Your task to perform on an android device: open app "Google Drive" (install if not already installed) Image 0: 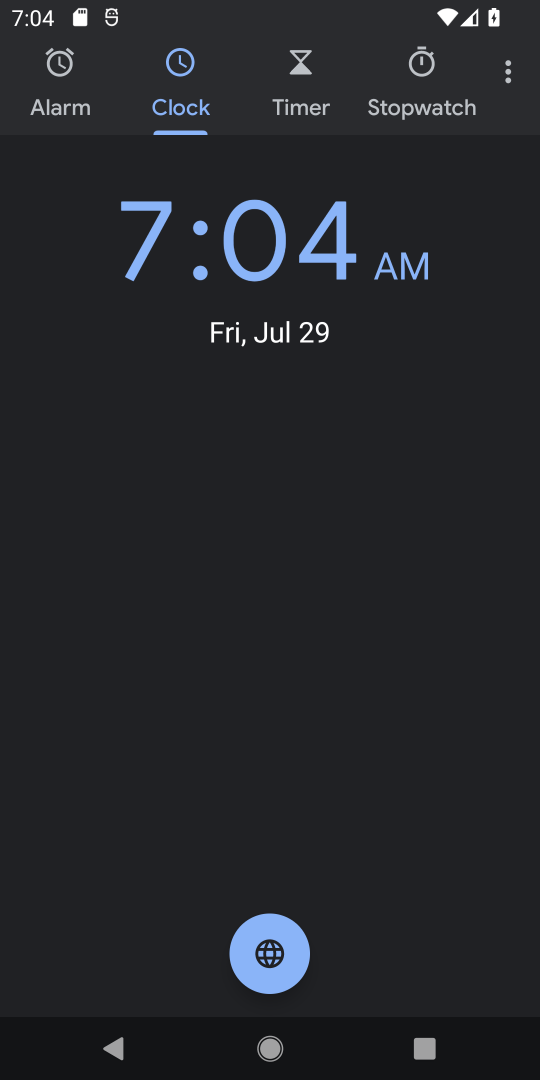
Step 0: press back button
Your task to perform on an android device: open app "Google Drive" (install if not already installed) Image 1: 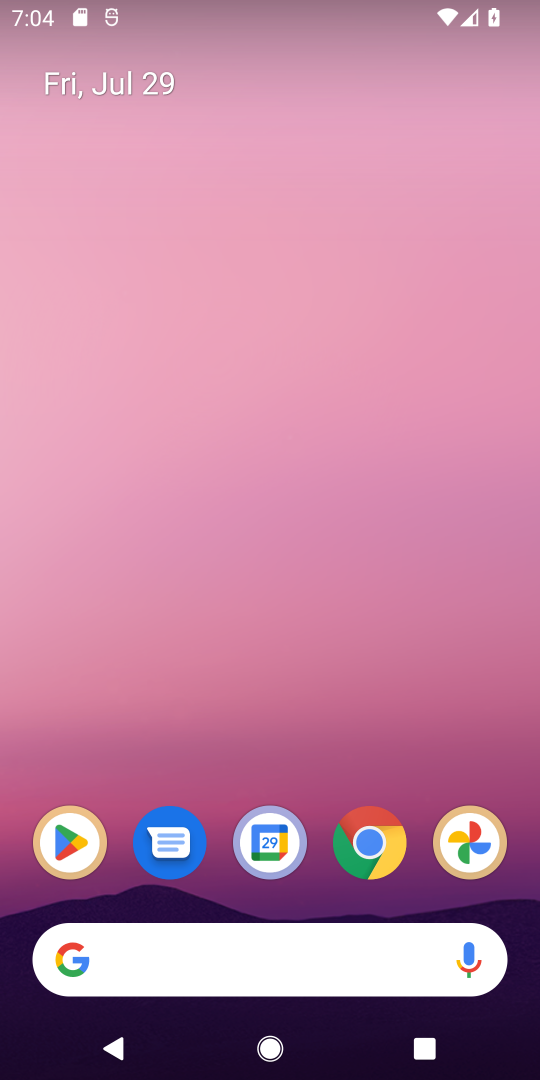
Step 1: drag from (304, 959) to (189, 155)
Your task to perform on an android device: open app "Google Drive" (install if not already installed) Image 2: 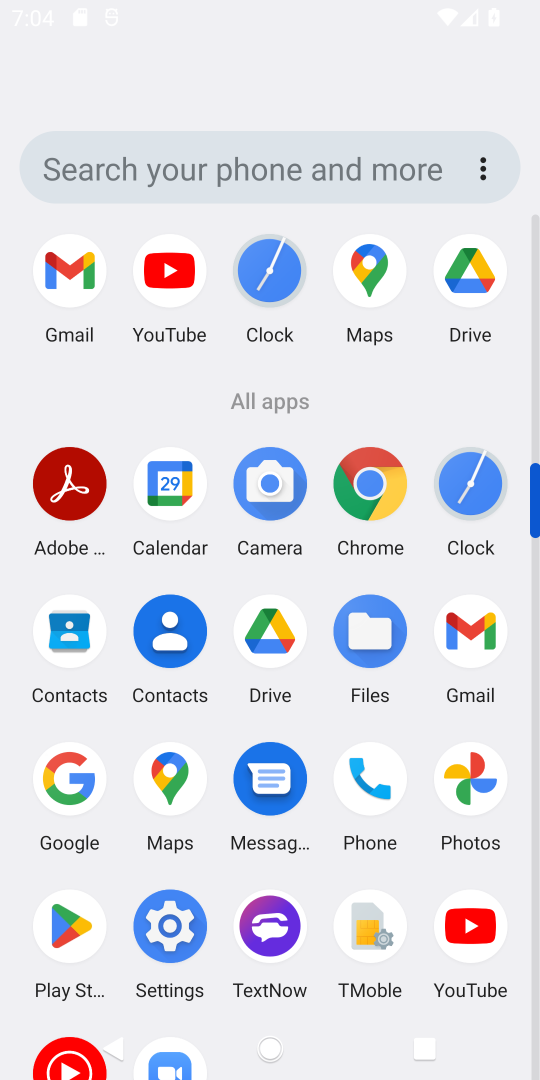
Step 2: drag from (312, 714) to (275, 192)
Your task to perform on an android device: open app "Google Drive" (install if not already installed) Image 3: 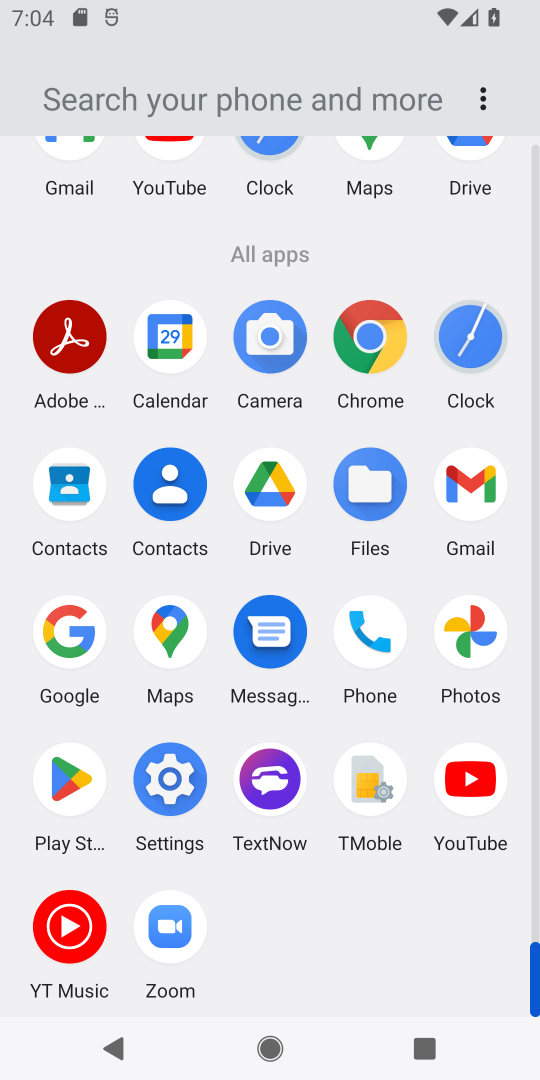
Step 3: click (56, 780)
Your task to perform on an android device: open app "Google Drive" (install if not already installed) Image 4: 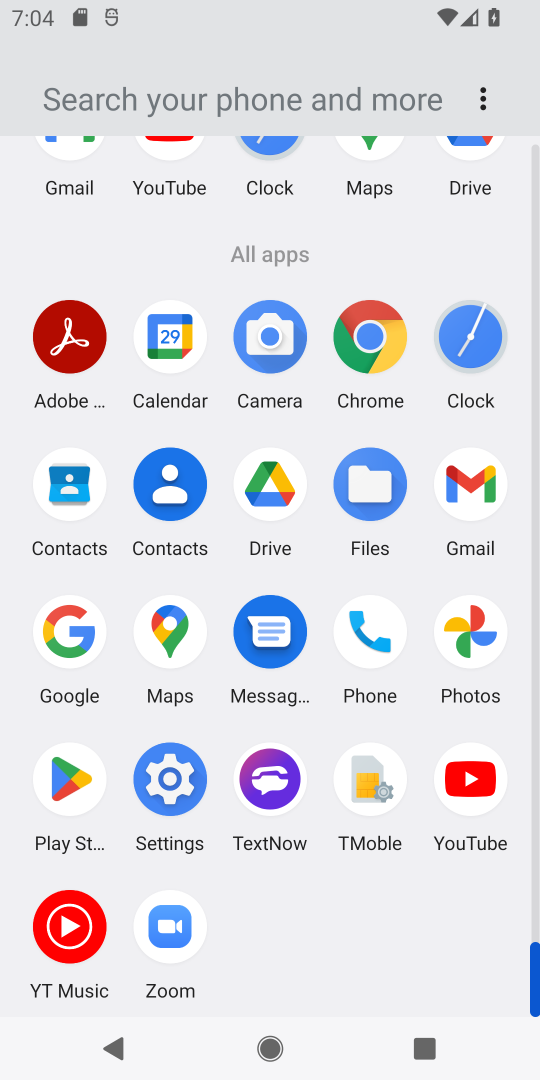
Step 4: click (57, 781)
Your task to perform on an android device: open app "Google Drive" (install if not already installed) Image 5: 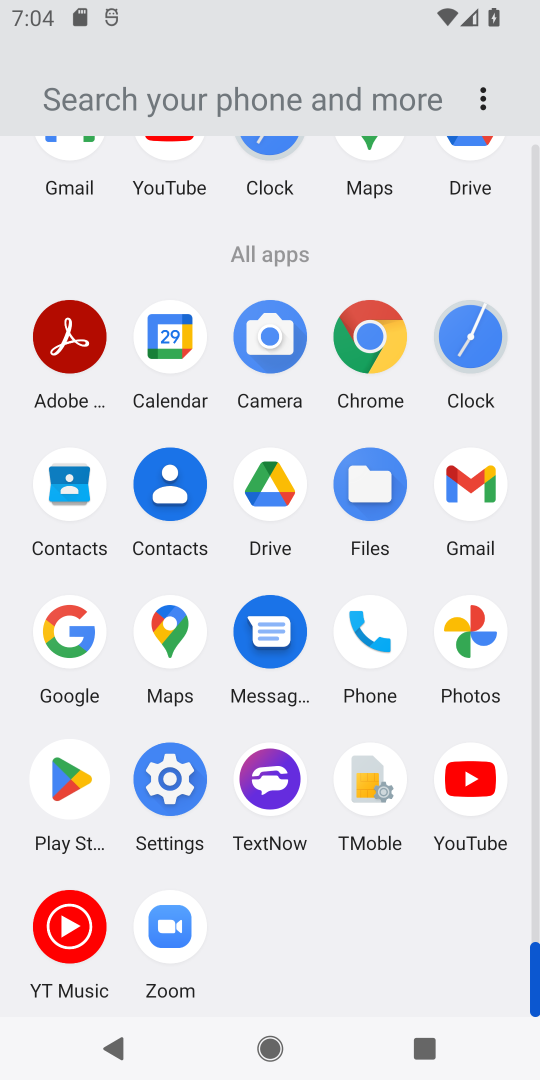
Step 5: click (72, 796)
Your task to perform on an android device: open app "Google Drive" (install if not already installed) Image 6: 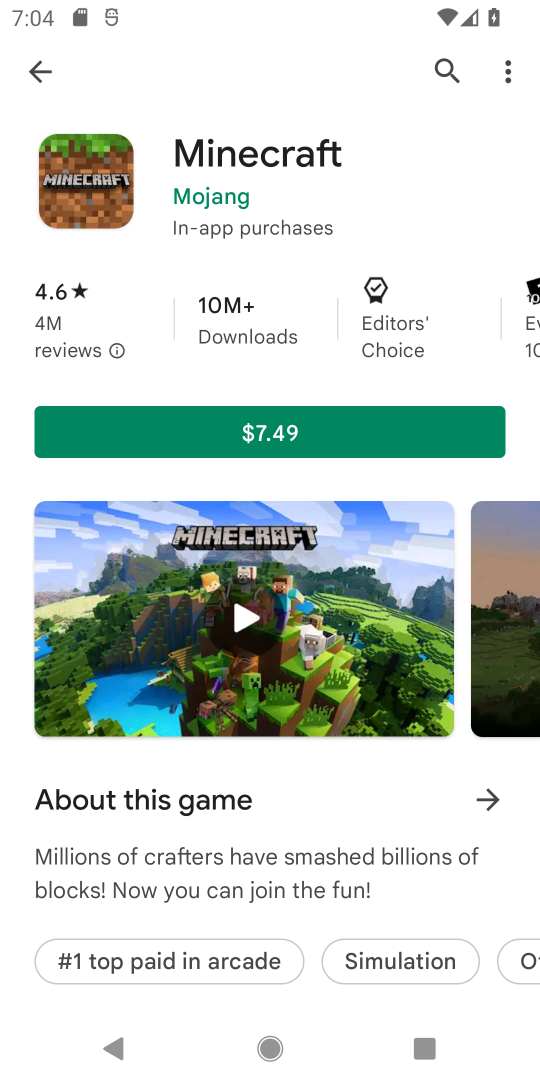
Step 6: click (54, 81)
Your task to perform on an android device: open app "Google Drive" (install if not already installed) Image 7: 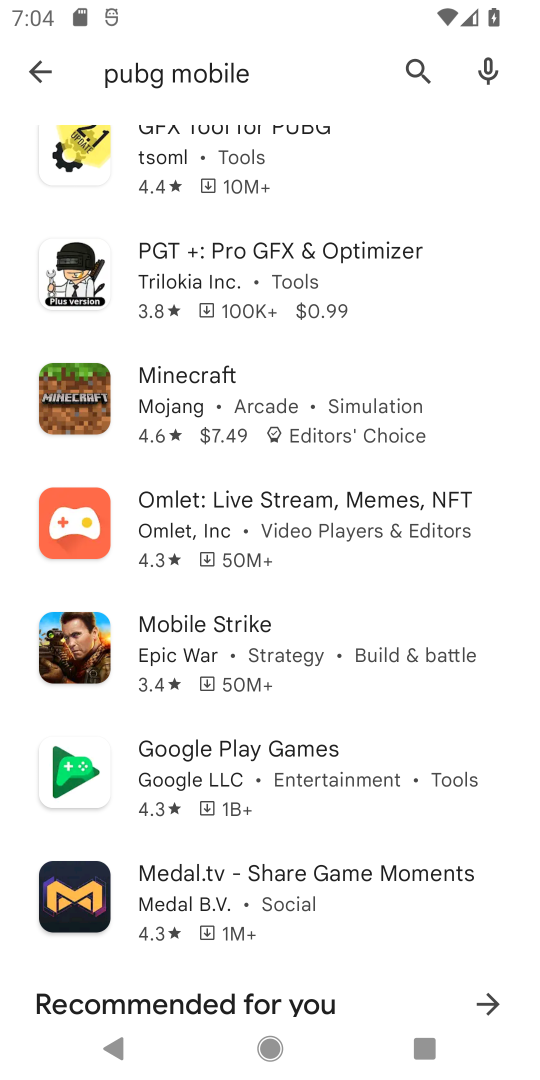
Step 7: drag from (178, 232) to (339, 918)
Your task to perform on an android device: open app "Google Drive" (install if not already installed) Image 8: 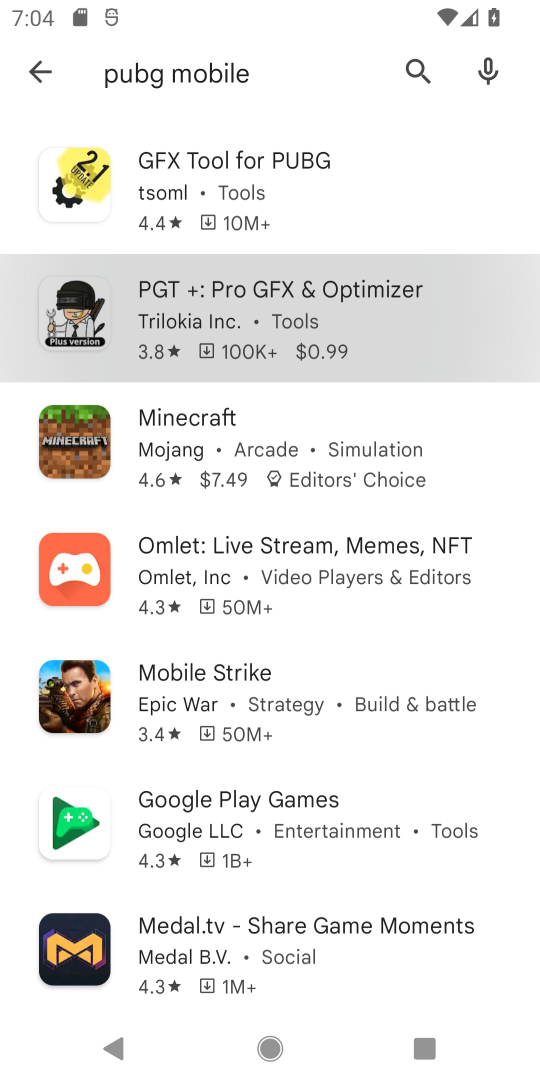
Step 8: drag from (274, 540) to (274, 780)
Your task to perform on an android device: open app "Google Drive" (install if not already installed) Image 9: 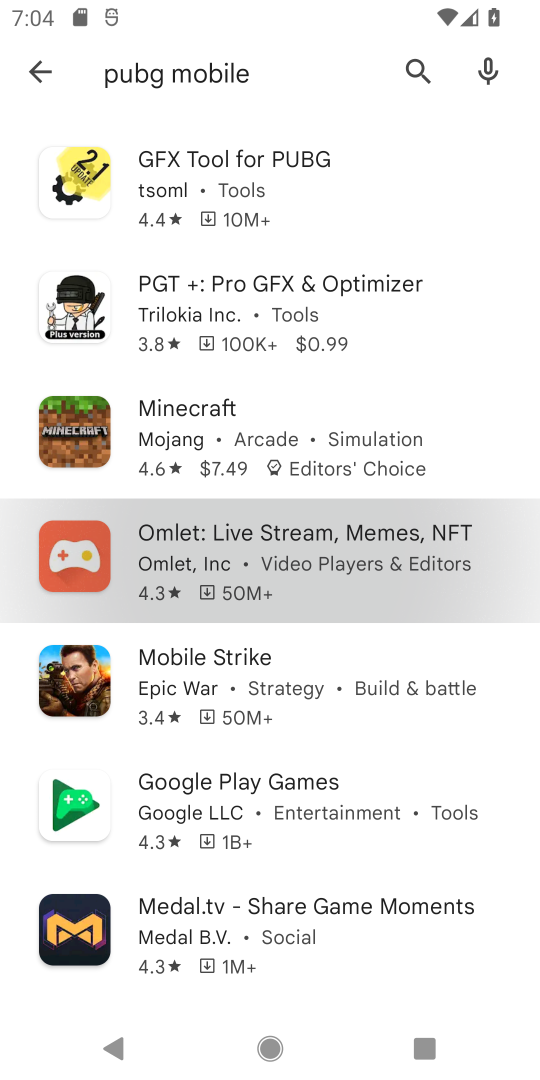
Step 9: drag from (263, 530) to (285, 730)
Your task to perform on an android device: open app "Google Drive" (install if not already installed) Image 10: 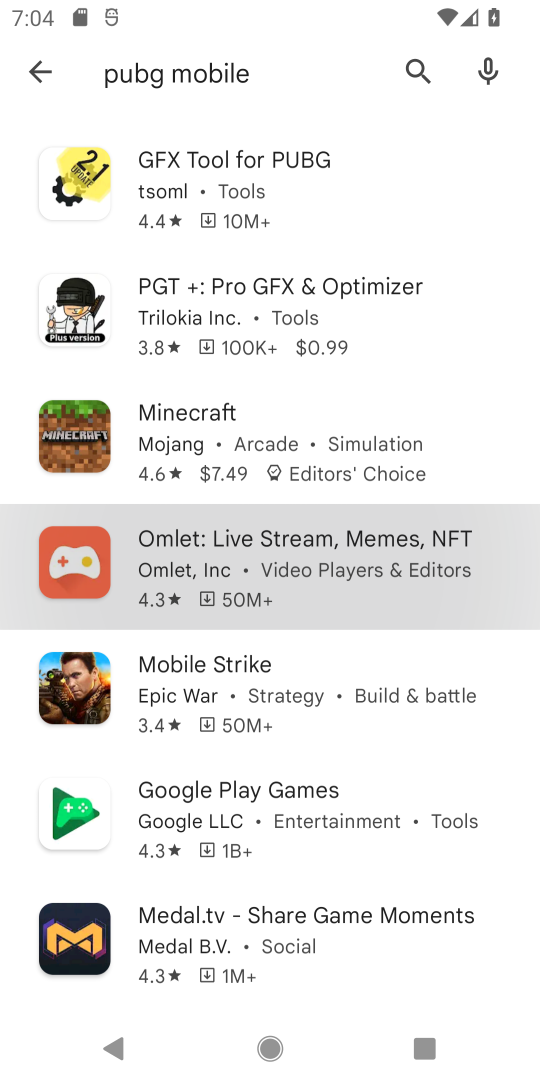
Step 10: click (288, 720)
Your task to perform on an android device: open app "Google Drive" (install if not already installed) Image 11: 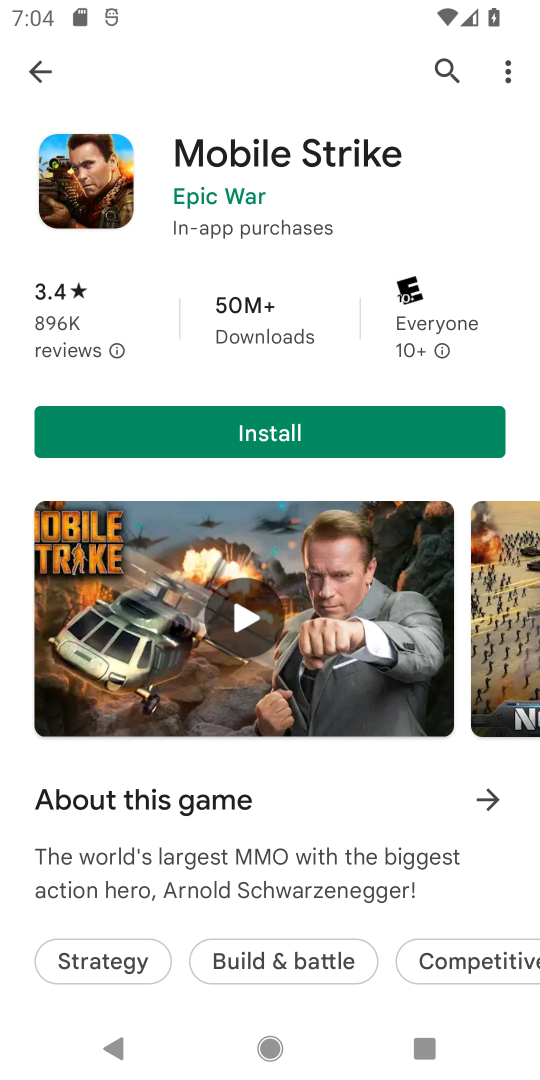
Step 11: click (43, 76)
Your task to perform on an android device: open app "Google Drive" (install if not already installed) Image 12: 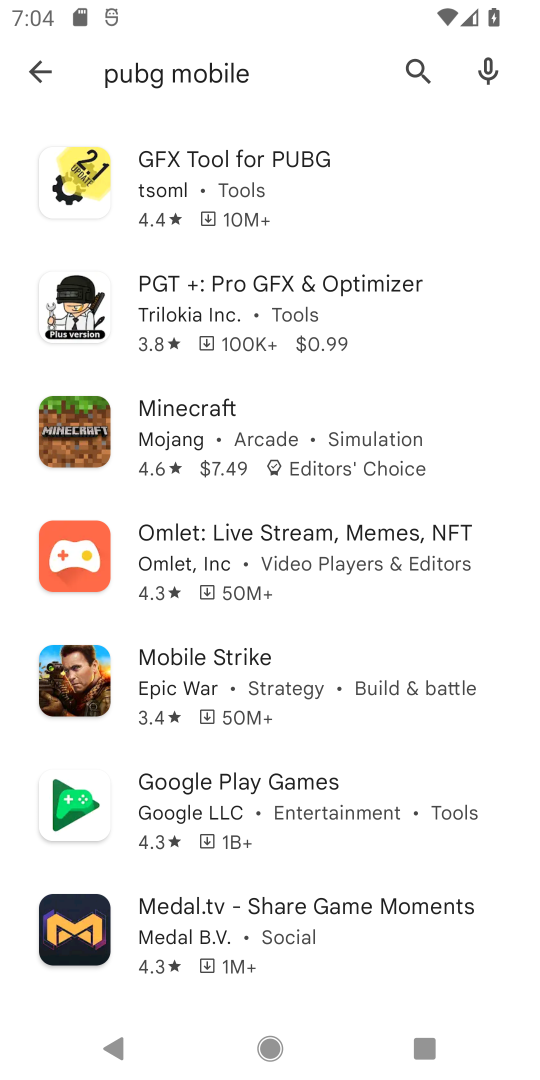
Step 12: click (50, 70)
Your task to perform on an android device: open app "Google Drive" (install if not already installed) Image 13: 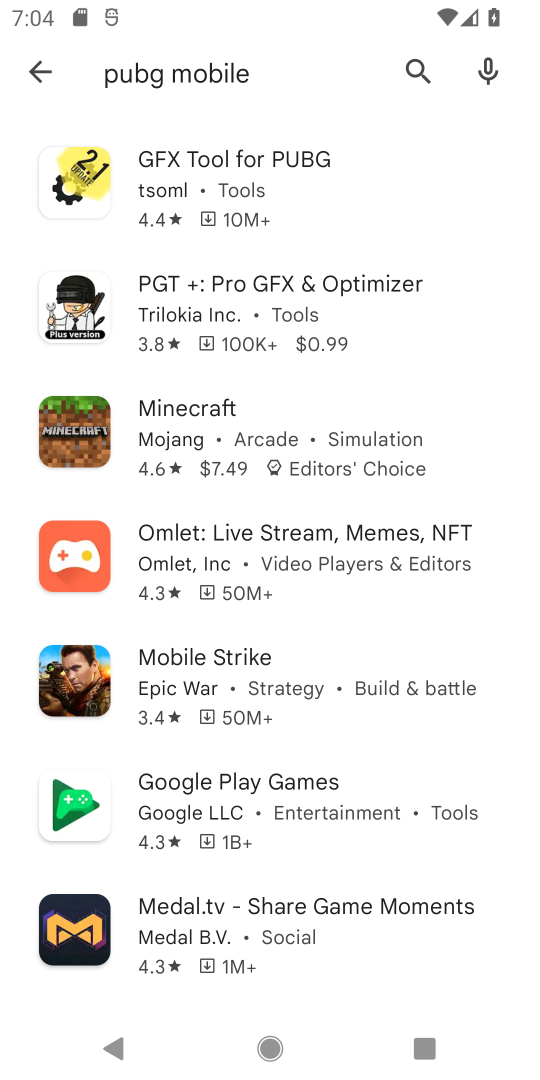
Step 13: click (36, 61)
Your task to perform on an android device: open app "Google Drive" (install if not already installed) Image 14: 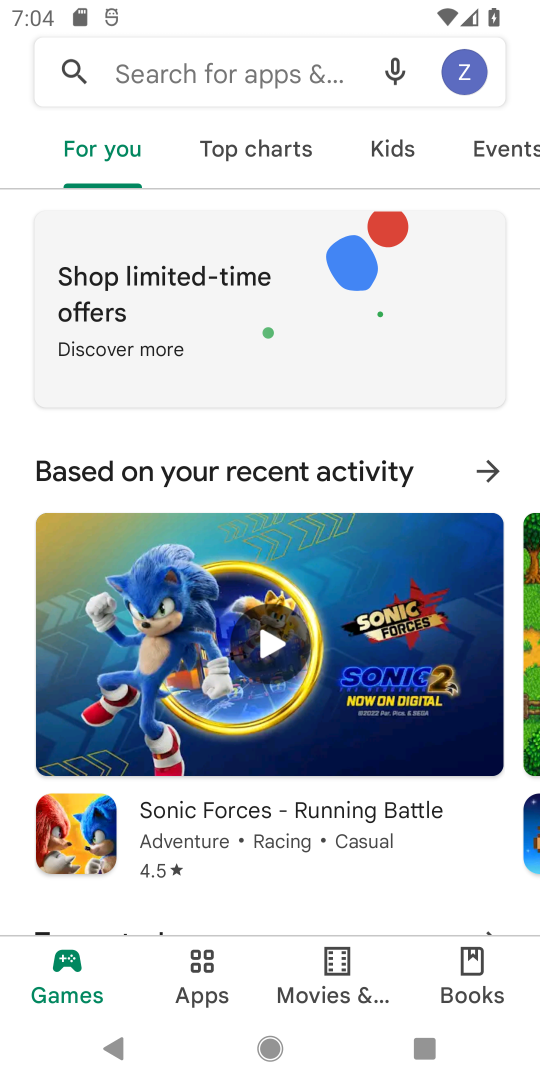
Step 14: click (118, 64)
Your task to perform on an android device: open app "Google Drive" (install if not already installed) Image 15: 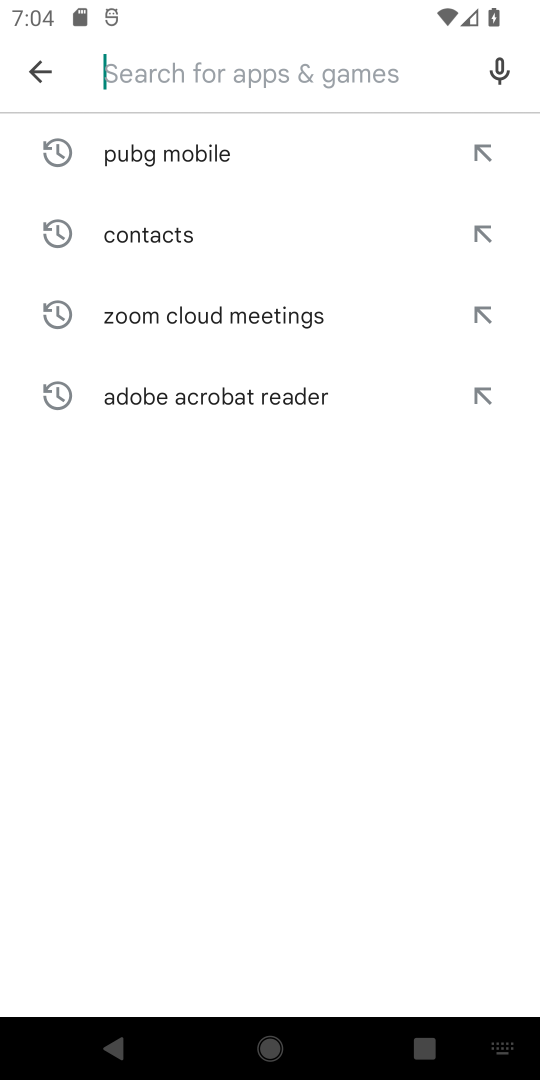
Step 15: type "google drive"
Your task to perform on an android device: open app "Google Drive" (install if not already installed) Image 16: 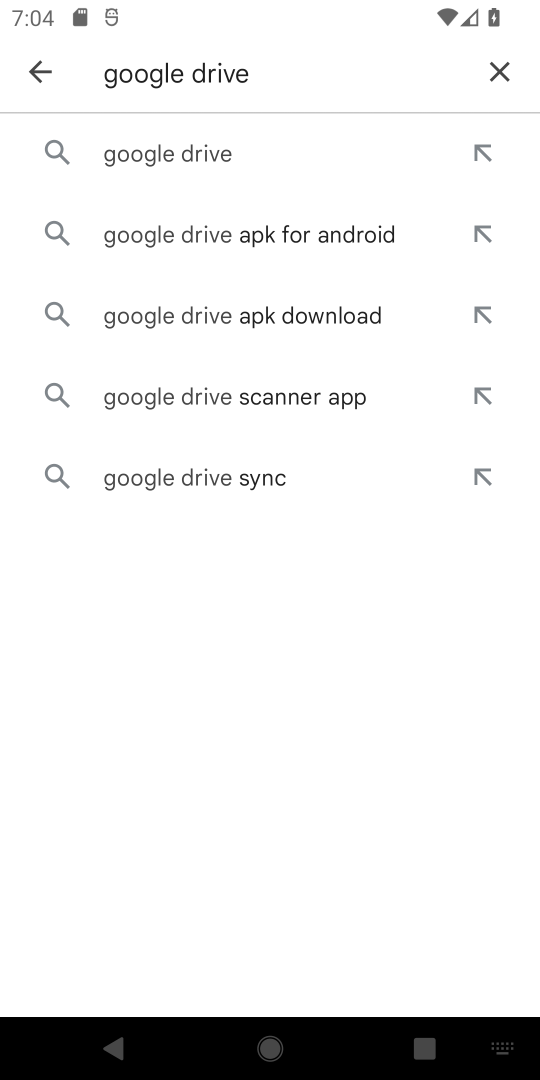
Step 16: click (182, 151)
Your task to perform on an android device: open app "Google Drive" (install if not already installed) Image 17: 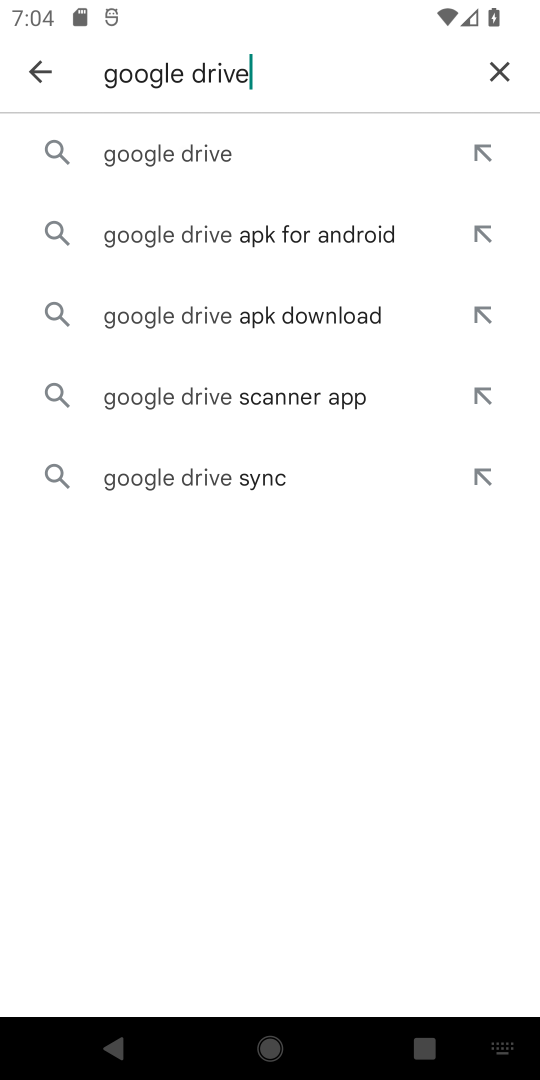
Step 17: click (180, 150)
Your task to perform on an android device: open app "Google Drive" (install if not already installed) Image 18: 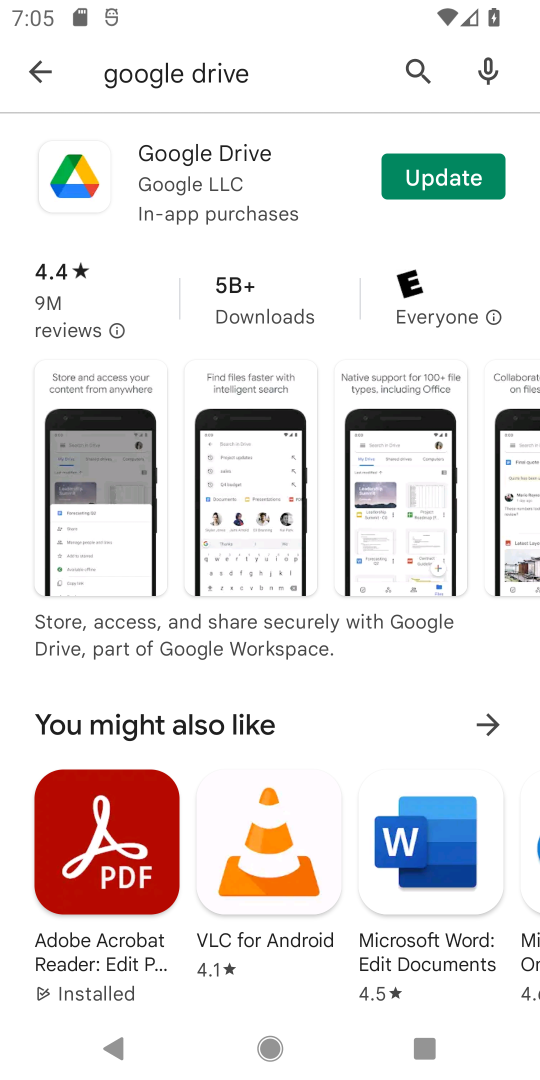
Step 18: click (397, 165)
Your task to perform on an android device: open app "Google Drive" (install if not already installed) Image 19: 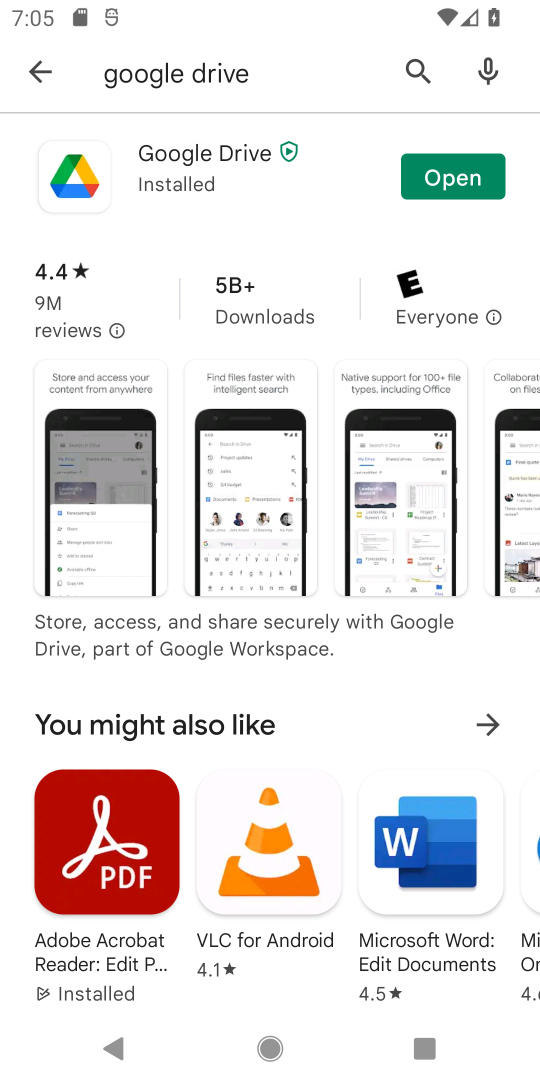
Step 19: click (439, 182)
Your task to perform on an android device: open app "Google Drive" (install if not already installed) Image 20: 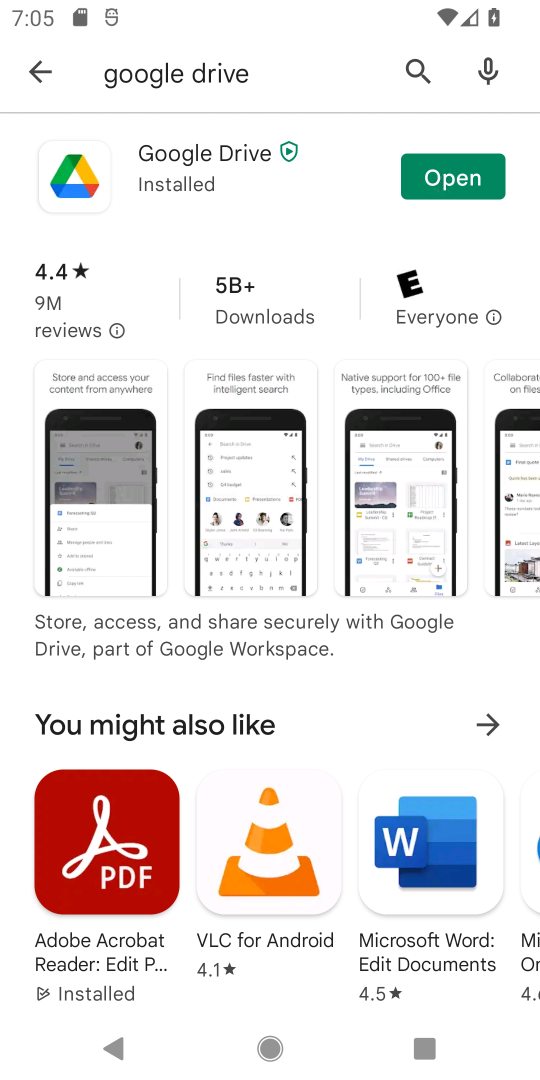
Step 20: click (443, 183)
Your task to perform on an android device: open app "Google Drive" (install if not already installed) Image 21: 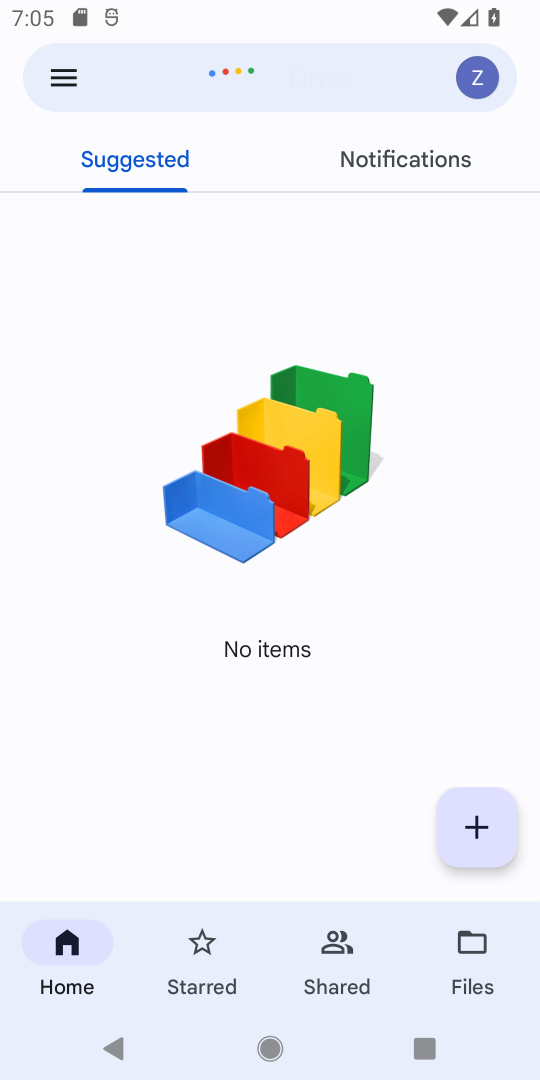
Step 21: task complete